Your task to perform on an android device: find snoozed emails in the gmail app Image 0: 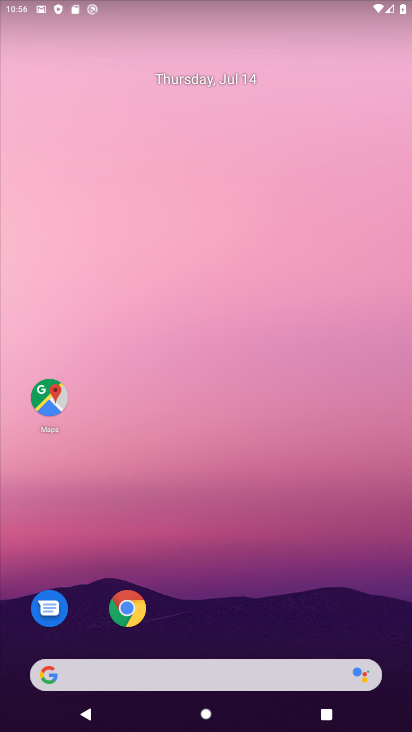
Step 0: drag from (326, 501) to (288, 22)
Your task to perform on an android device: find snoozed emails in the gmail app Image 1: 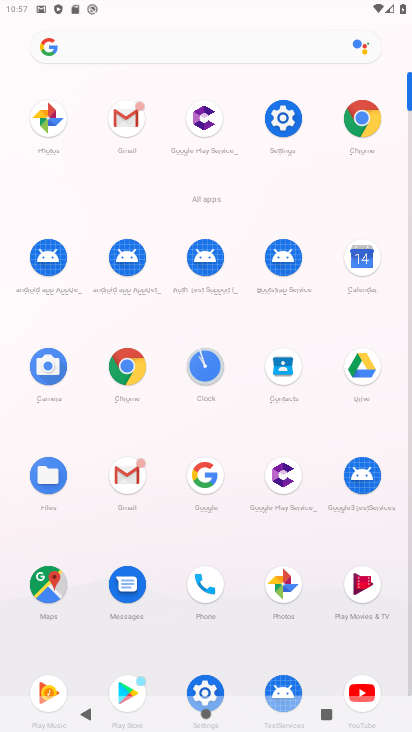
Step 1: click (131, 463)
Your task to perform on an android device: find snoozed emails in the gmail app Image 2: 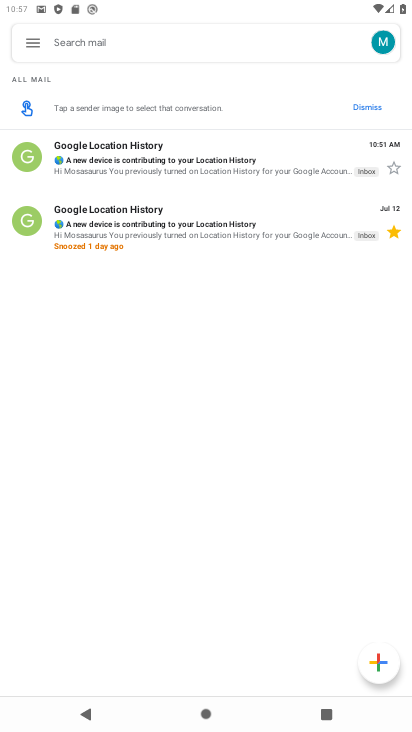
Step 2: click (28, 42)
Your task to perform on an android device: find snoozed emails in the gmail app Image 3: 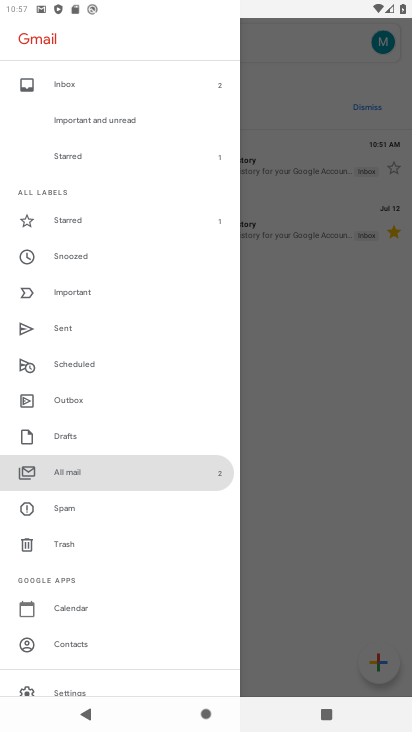
Step 3: click (62, 254)
Your task to perform on an android device: find snoozed emails in the gmail app Image 4: 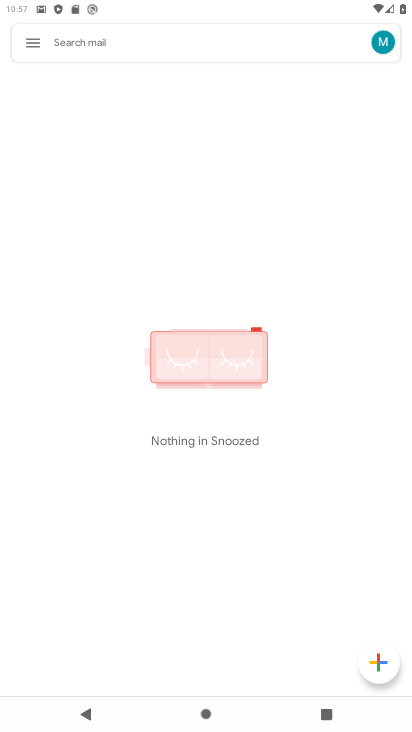
Step 4: task complete